Your task to perform on an android device: Go to network settings Image 0: 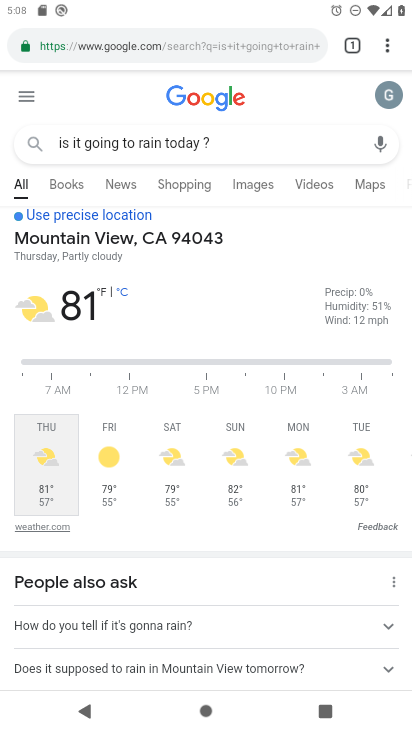
Step 0: press home button
Your task to perform on an android device: Go to network settings Image 1: 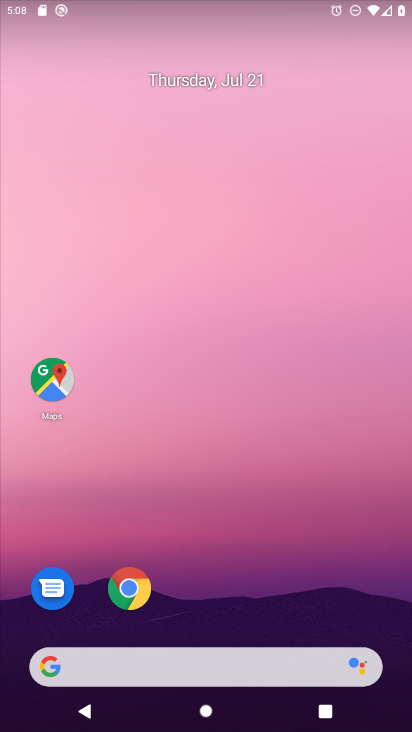
Step 1: drag from (301, 609) to (205, 179)
Your task to perform on an android device: Go to network settings Image 2: 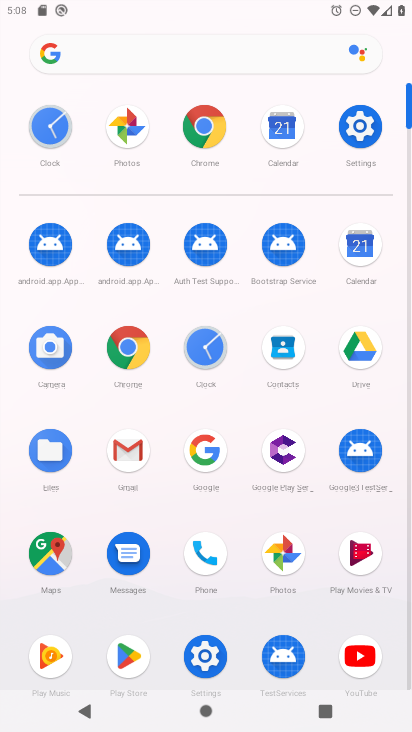
Step 2: click (364, 130)
Your task to perform on an android device: Go to network settings Image 3: 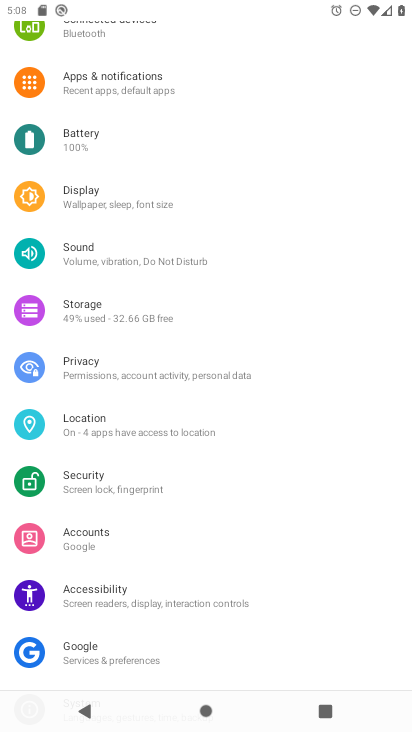
Step 3: drag from (157, 52) to (179, 333)
Your task to perform on an android device: Go to network settings Image 4: 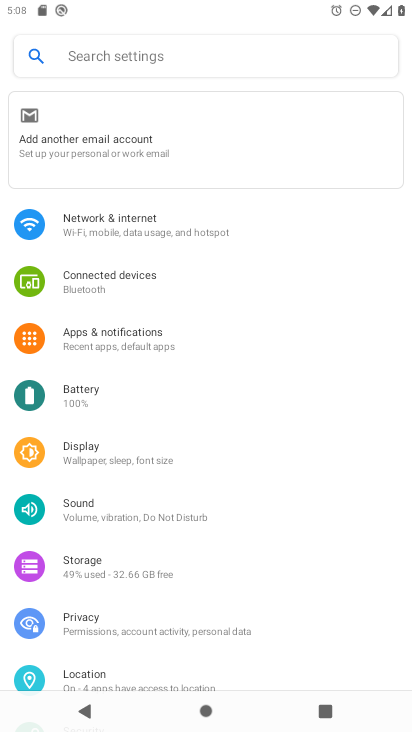
Step 4: click (185, 227)
Your task to perform on an android device: Go to network settings Image 5: 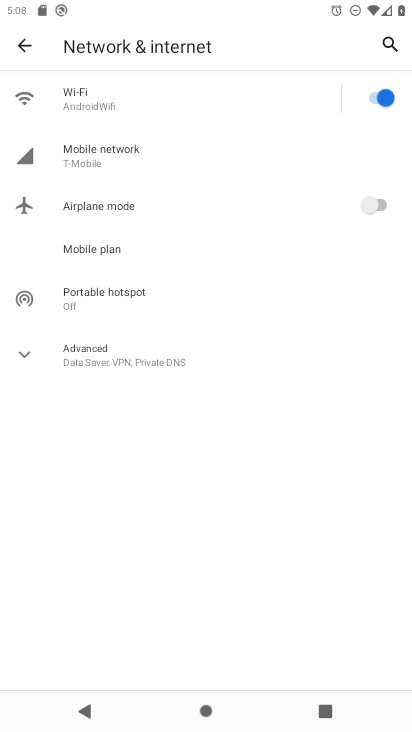
Step 5: task complete